Your task to perform on an android device: turn off airplane mode Image 0: 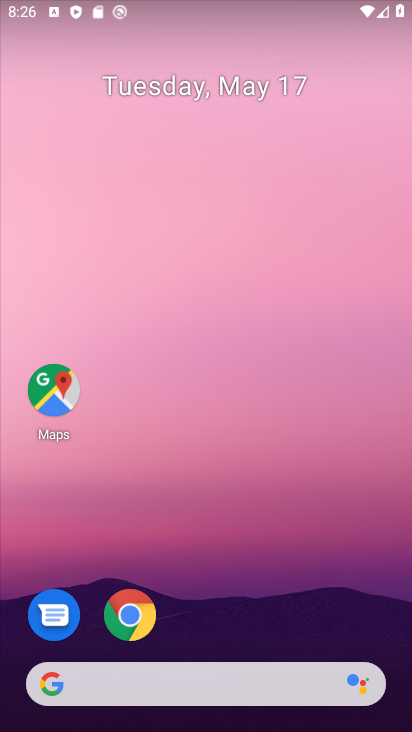
Step 0: drag from (394, 643) to (321, 295)
Your task to perform on an android device: turn off airplane mode Image 1: 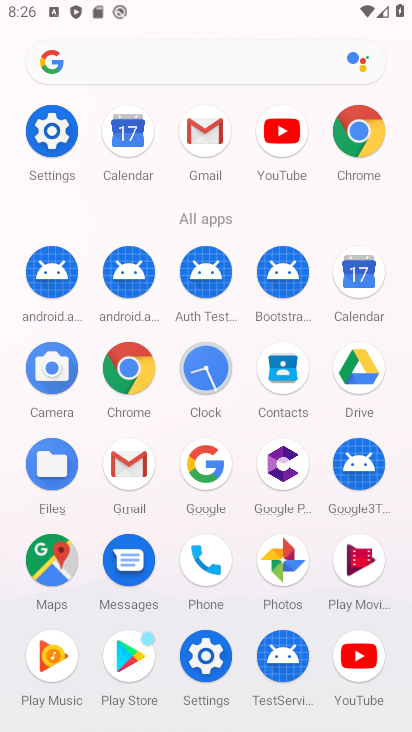
Step 1: click (205, 652)
Your task to perform on an android device: turn off airplane mode Image 2: 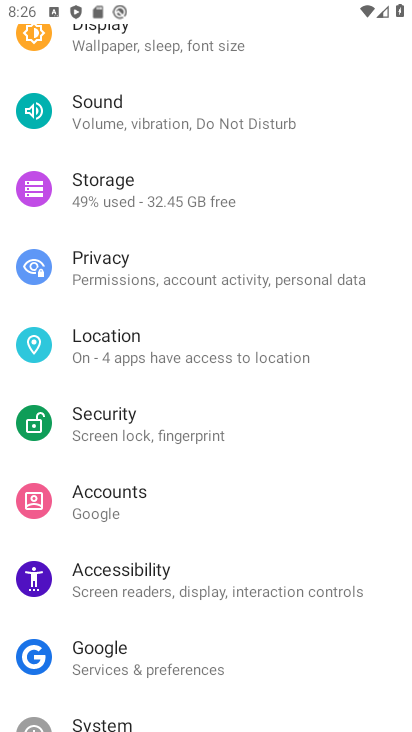
Step 2: drag from (337, 217) to (323, 423)
Your task to perform on an android device: turn off airplane mode Image 3: 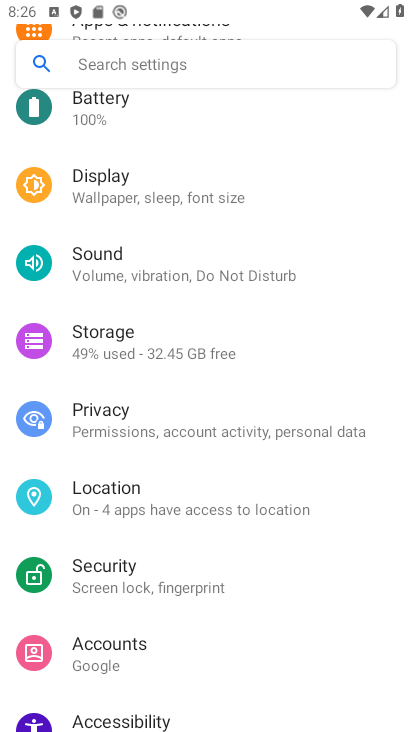
Step 3: drag from (347, 225) to (344, 429)
Your task to perform on an android device: turn off airplane mode Image 4: 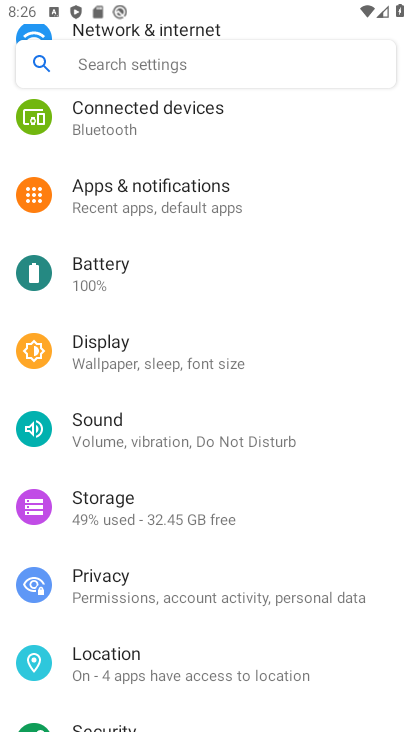
Step 4: drag from (293, 209) to (293, 384)
Your task to perform on an android device: turn off airplane mode Image 5: 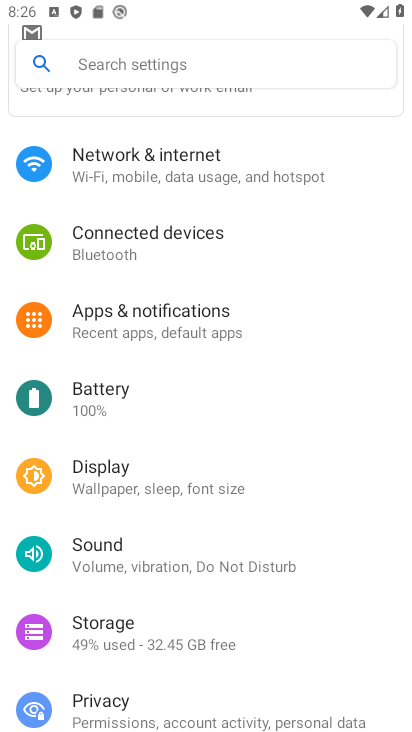
Step 5: click (123, 154)
Your task to perform on an android device: turn off airplane mode Image 6: 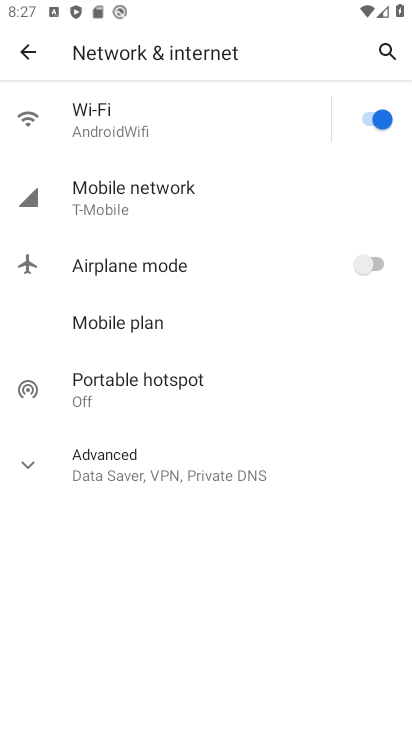
Step 6: task complete